Your task to perform on an android device: Open the Play Movies app and select the watchlist tab. Image 0: 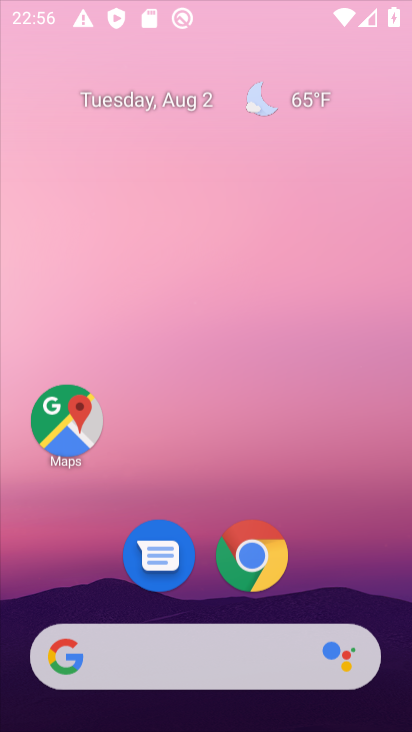
Step 0: drag from (241, 640) to (174, 343)
Your task to perform on an android device: Open the Play Movies app and select the watchlist tab. Image 1: 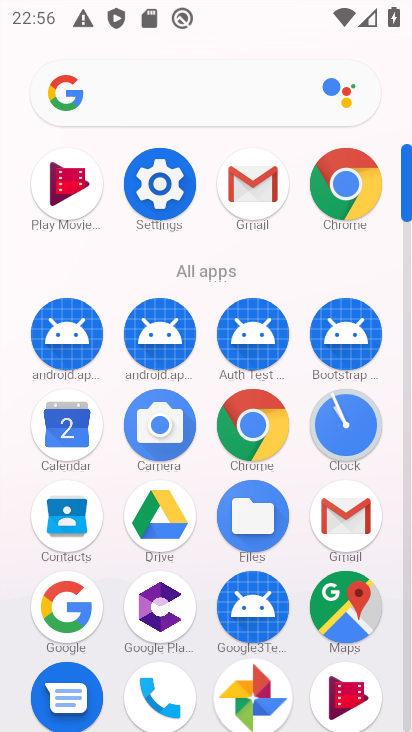
Step 1: drag from (246, 512) to (215, 313)
Your task to perform on an android device: Open the Play Movies app and select the watchlist tab. Image 2: 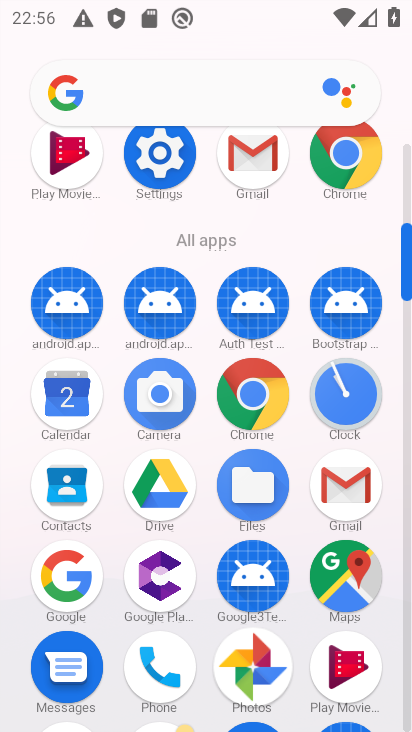
Step 2: drag from (182, 574) to (159, 152)
Your task to perform on an android device: Open the Play Movies app and select the watchlist tab. Image 3: 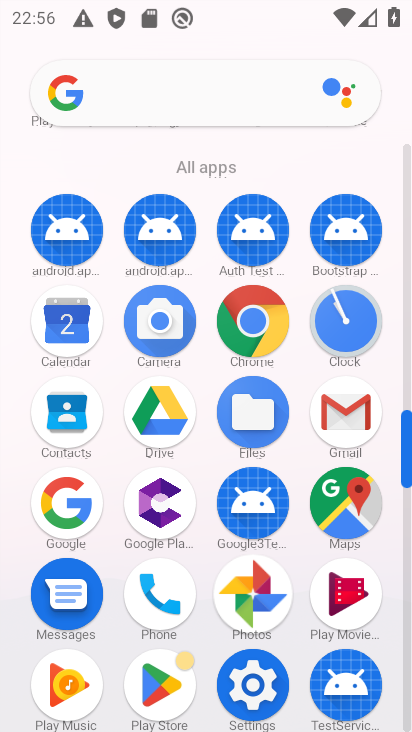
Step 3: click (192, 202)
Your task to perform on an android device: Open the Play Movies app and select the watchlist tab. Image 4: 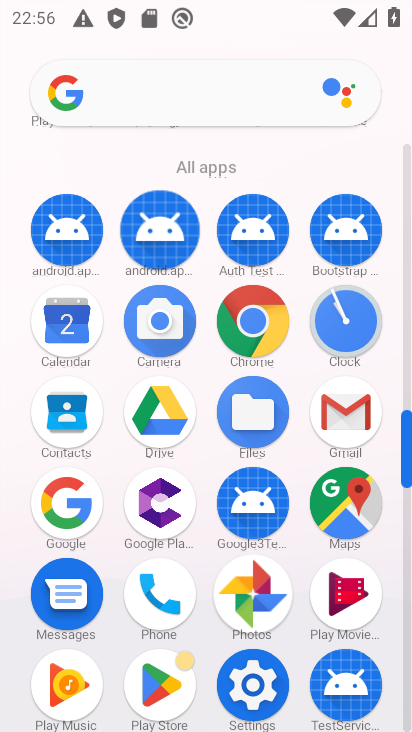
Step 4: click (346, 593)
Your task to perform on an android device: Open the Play Movies app and select the watchlist tab. Image 5: 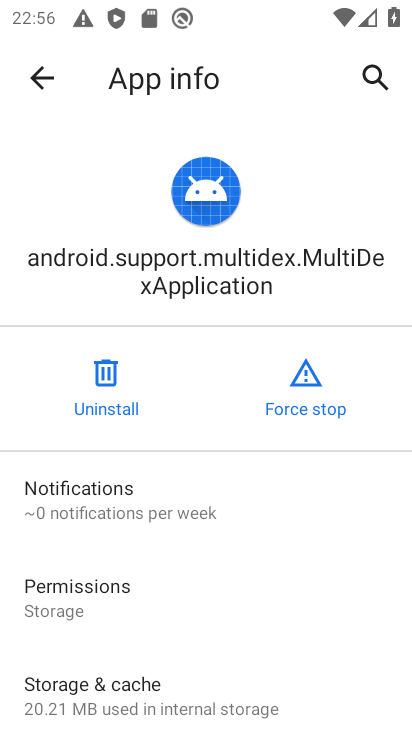
Step 5: click (27, 81)
Your task to perform on an android device: Open the Play Movies app and select the watchlist tab. Image 6: 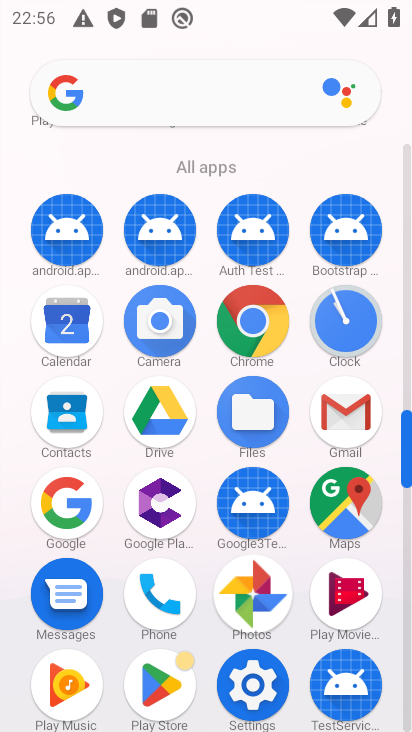
Step 6: click (348, 615)
Your task to perform on an android device: Open the Play Movies app and select the watchlist tab. Image 7: 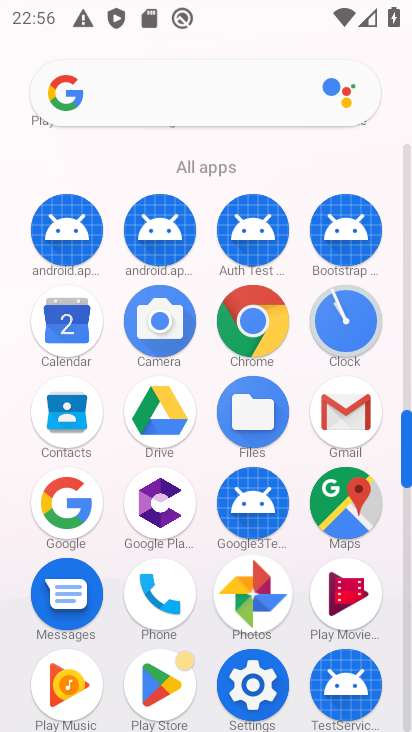
Step 7: click (348, 606)
Your task to perform on an android device: Open the Play Movies app and select the watchlist tab. Image 8: 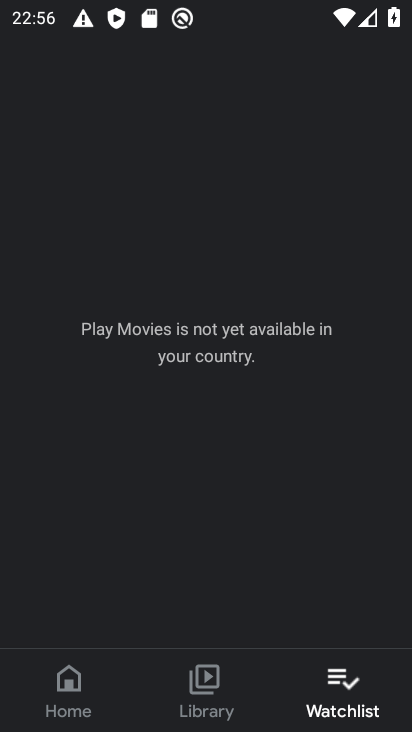
Step 8: click (345, 697)
Your task to perform on an android device: Open the Play Movies app and select the watchlist tab. Image 9: 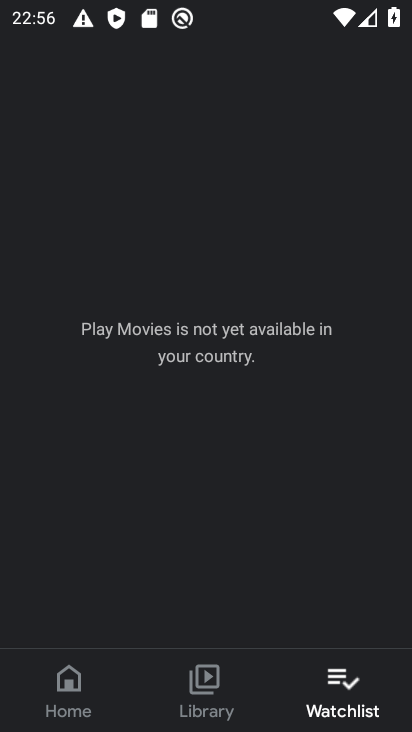
Step 9: task complete